Your task to perform on an android device: Clear the cart on walmart. Search for "logitech g910" on walmart, select the first entry, and add it to the cart. Image 0: 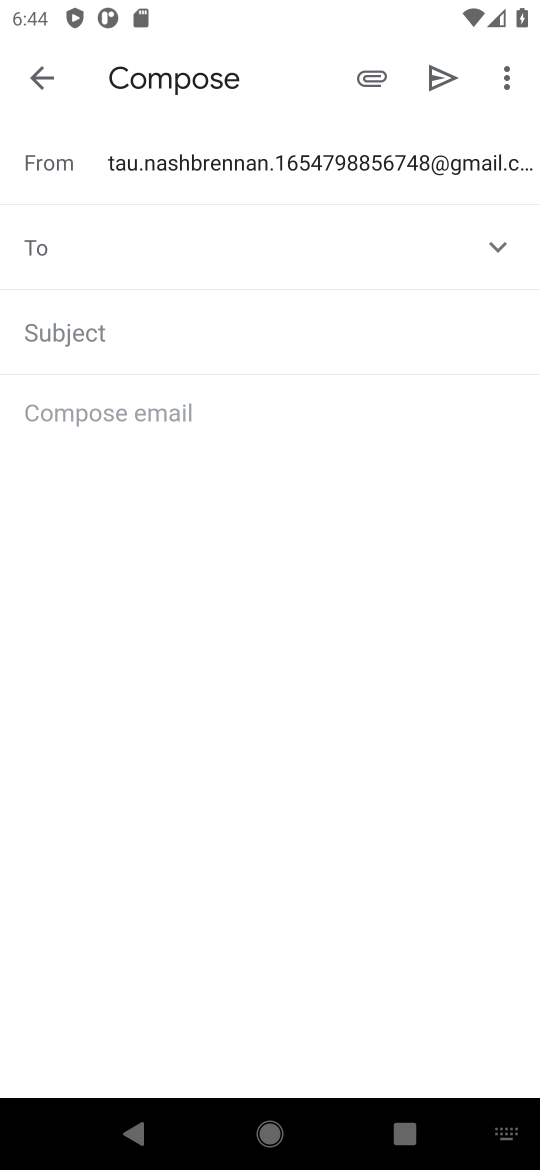
Step 0: press home button
Your task to perform on an android device: Clear the cart on walmart. Search for "logitech g910" on walmart, select the first entry, and add it to the cart. Image 1: 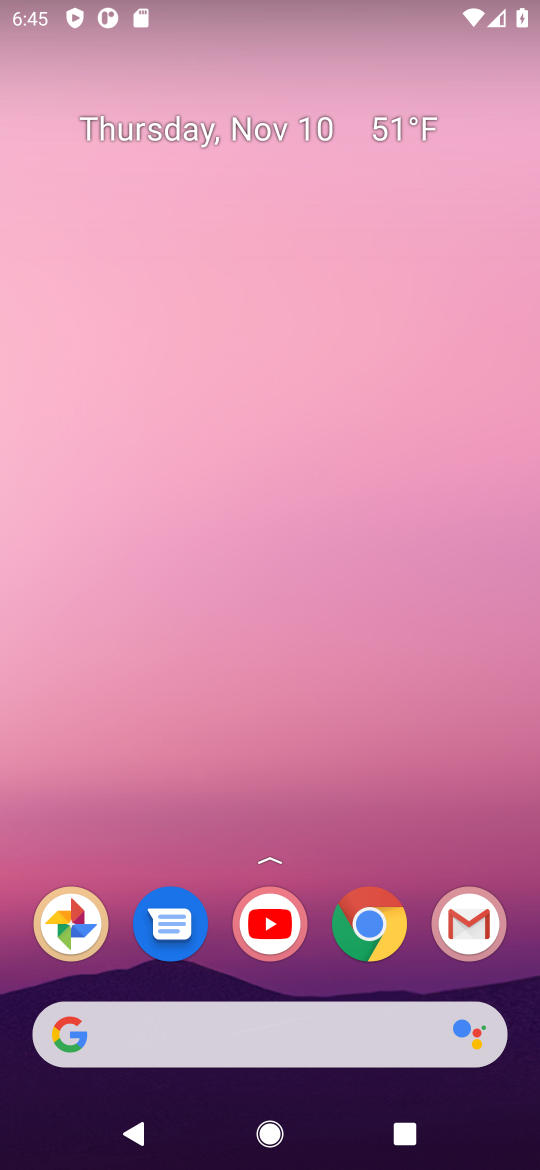
Step 1: click (364, 931)
Your task to perform on an android device: Clear the cart on walmart. Search for "logitech g910" on walmart, select the first entry, and add it to the cart. Image 2: 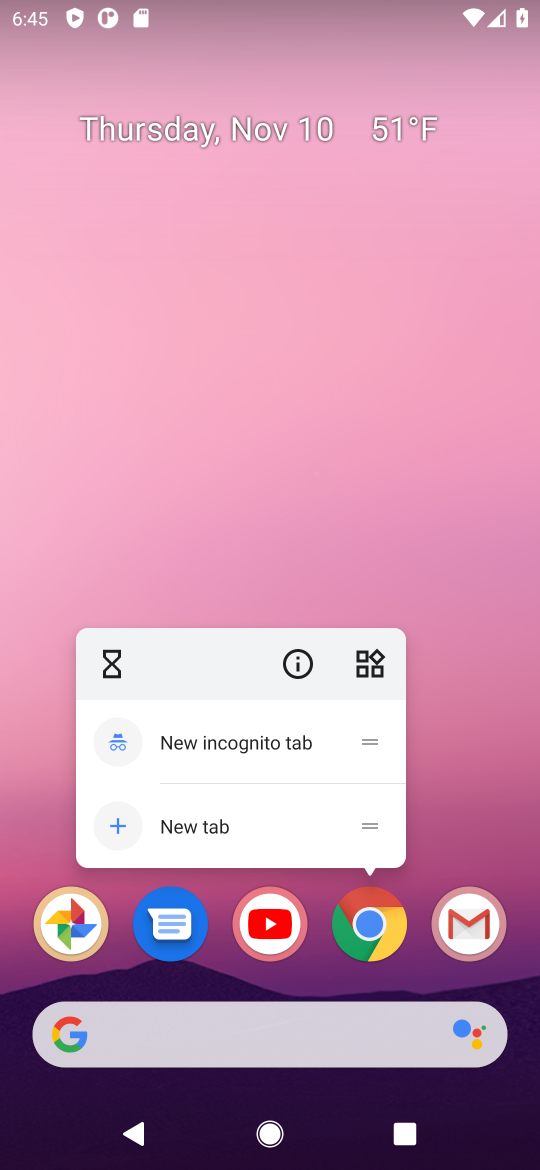
Step 2: click (369, 930)
Your task to perform on an android device: Clear the cart on walmart. Search for "logitech g910" on walmart, select the first entry, and add it to the cart. Image 3: 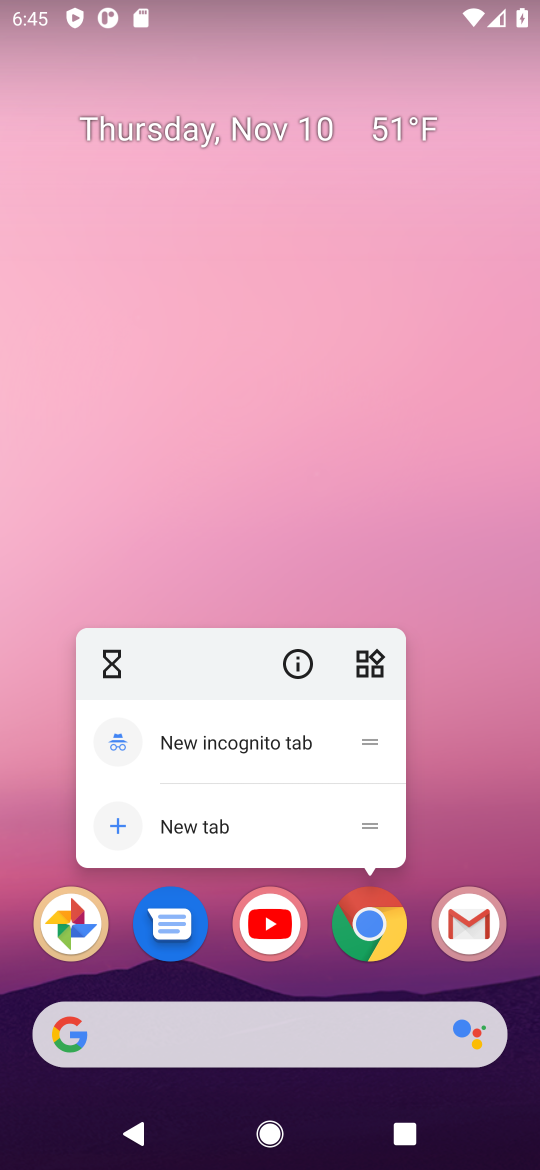
Step 3: click (369, 930)
Your task to perform on an android device: Clear the cart on walmart. Search for "logitech g910" on walmart, select the first entry, and add it to the cart. Image 4: 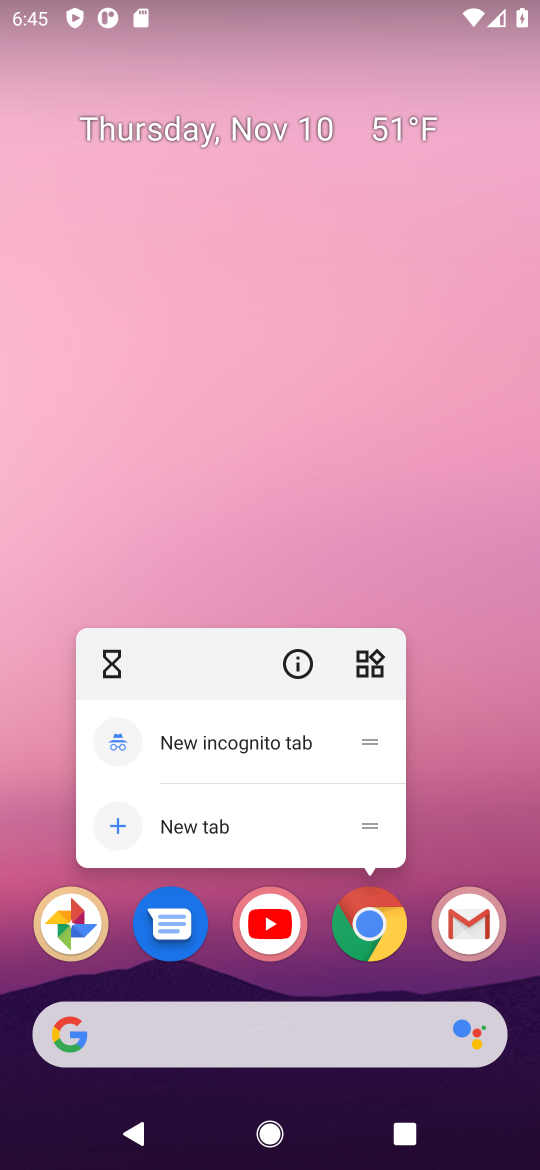
Step 4: click (369, 930)
Your task to perform on an android device: Clear the cart on walmart. Search for "logitech g910" on walmart, select the first entry, and add it to the cart. Image 5: 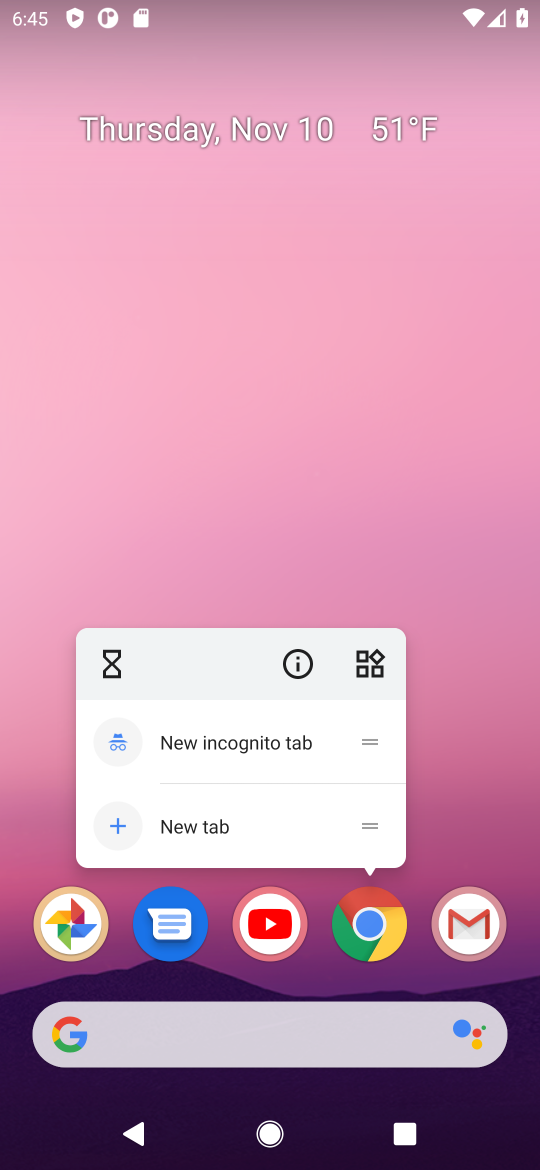
Step 5: click (371, 924)
Your task to perform on an android device: Clear the cart on walmart. Search for "logitech g910" on walmart, select the first entry, and add it to the cart. Image 6: 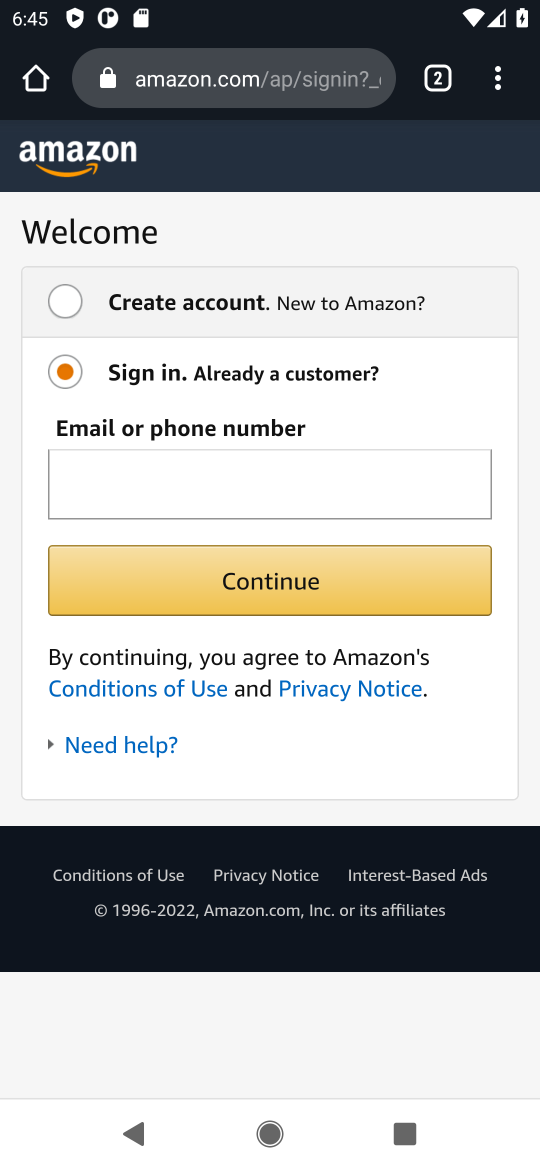
Step 6: click (214, 93)
Your task to perform on an android device: Clear the cart on walmart. Search for "logitech g910" on walmart, select the first entry, and add it to the cart. Image 7: 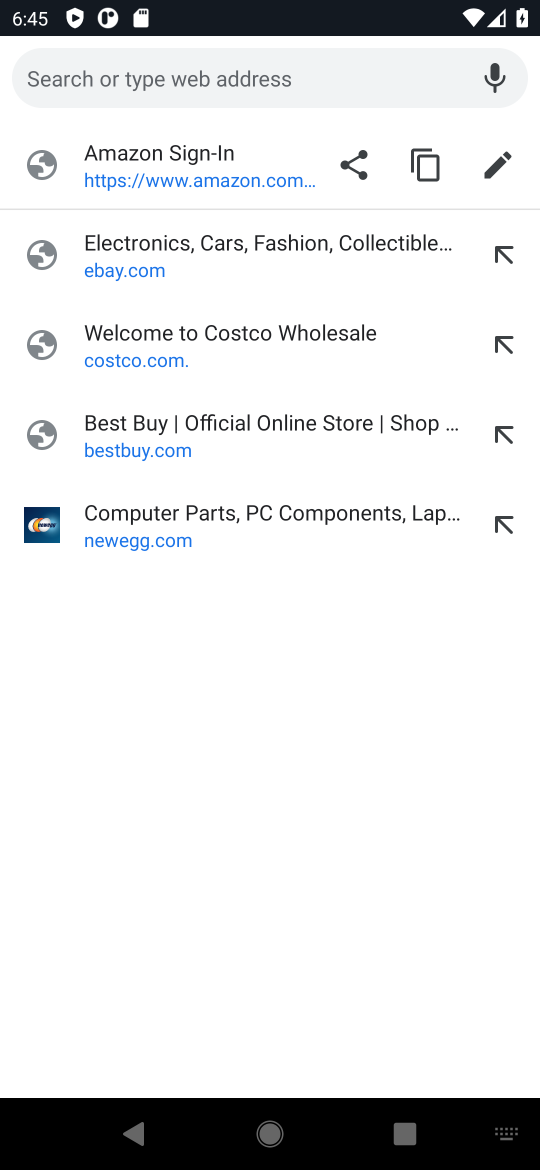
Step 7: type "walmart.com"
Your task to perform on an android device: Clear the cart on walmart. Search for "logitech g910" on walmart, select the first entry, and add it to the cart. Image 8: 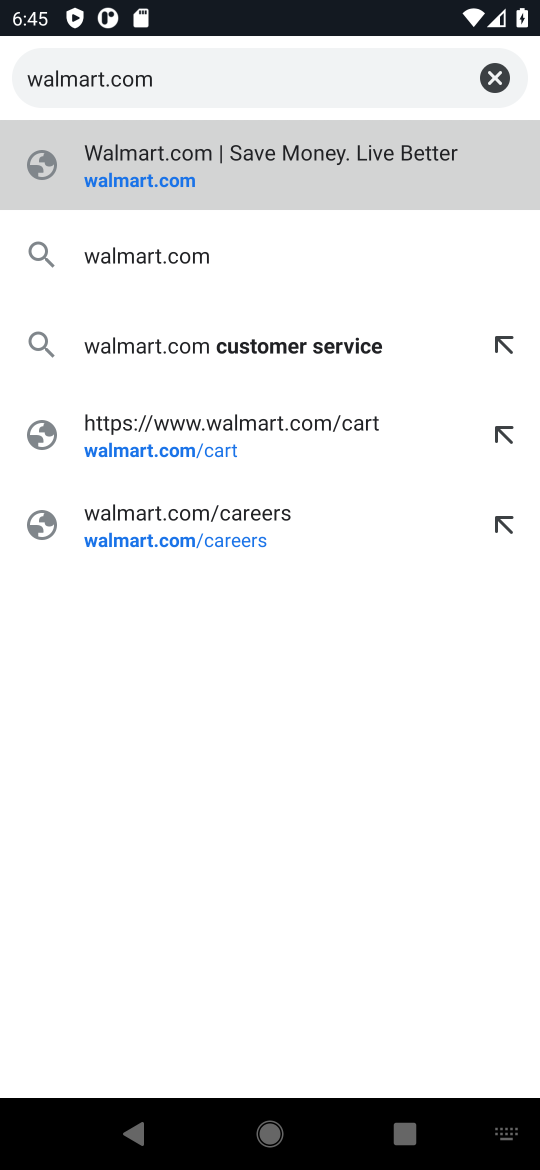
Step 8: click (165, 183)
Your task to perform on an android device: Clear the cart on walmart. Search for "logitech g910" on walmart, select the first entry, and add it to the cart. Image 9: 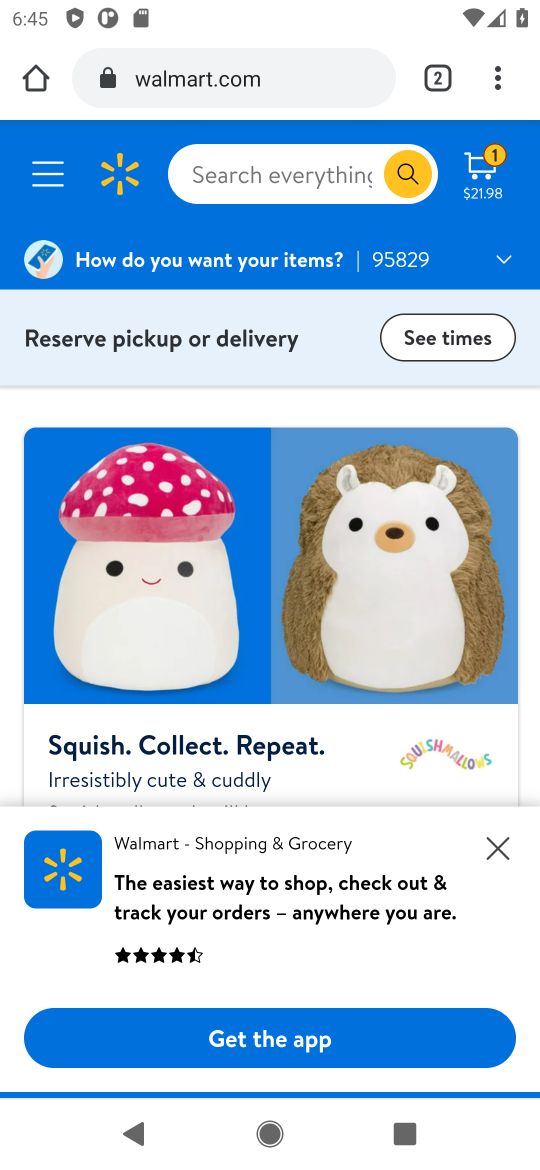
Step 9: click (485, 158)
Your task to perform on an android device: Clear the cart on walmart. Search for "logitech g910" on walmart, select the first entry, and add it to the cart. Image 10: 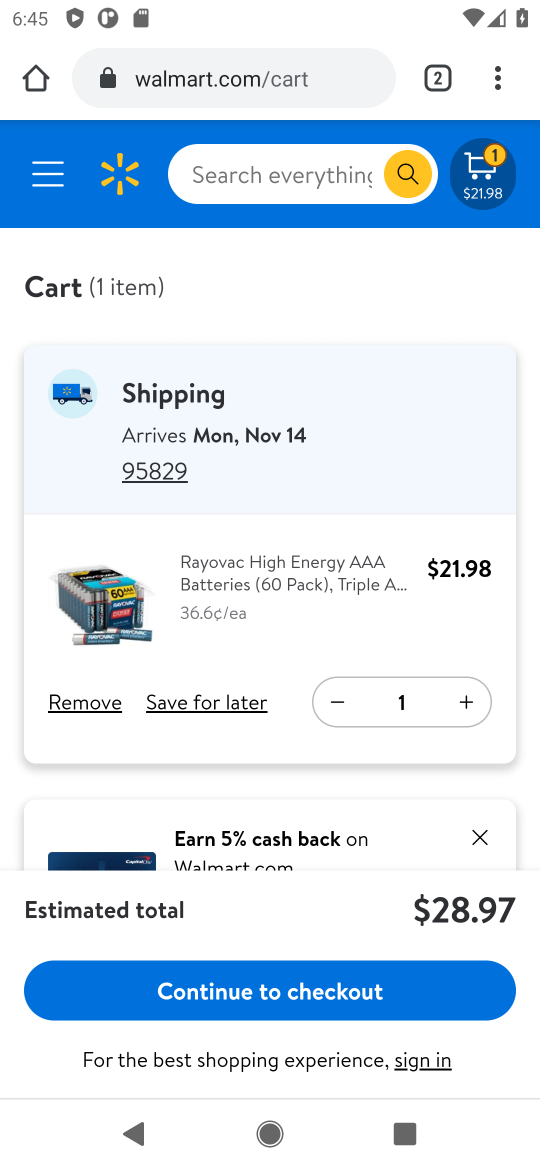
Step 10: click (98, 702)
Your task to perform on an android device: Clear the cart on walmart. Search for "logitech g910" on walmart, select the first entry, and add it to the cart. Image 11: 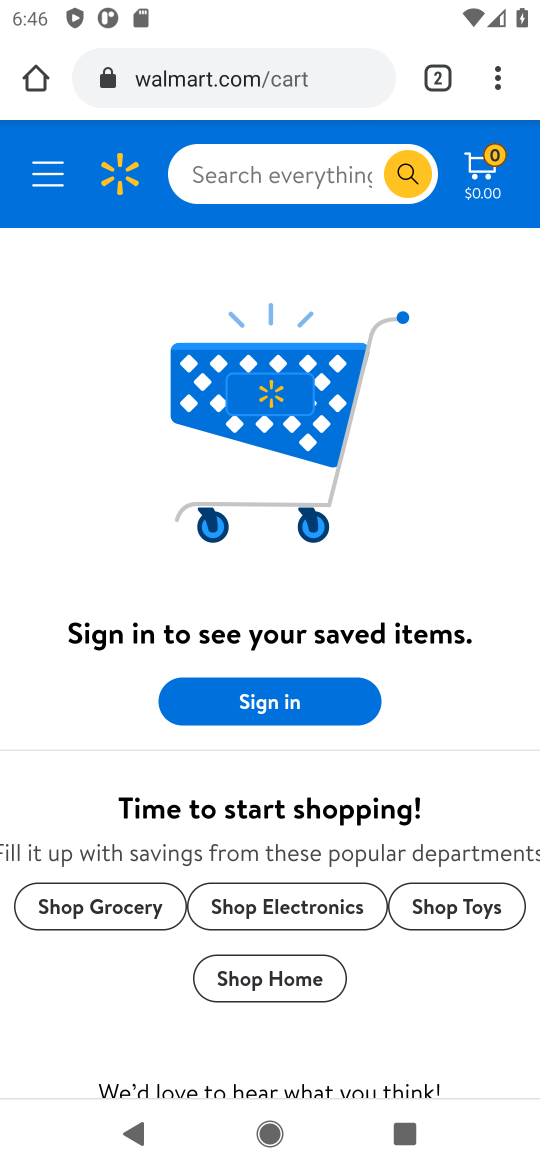
Step 11: click (262, 185)
Your task to perform on an android device: Clear the cart on walmart. Search for "logitech g910" on walmart, select the first entry, and add it to the cart. Image 12: 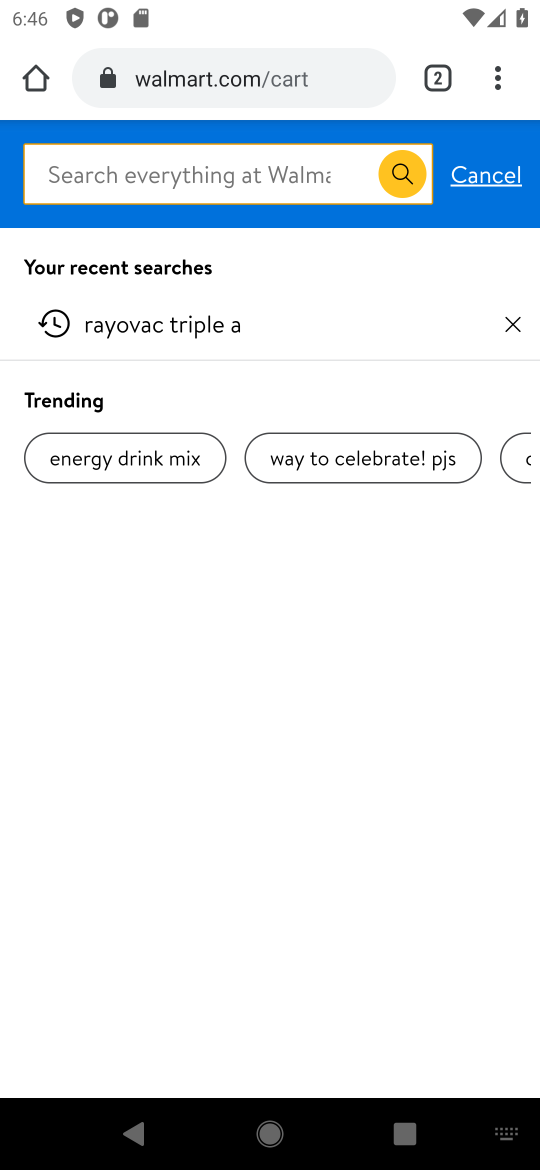
Step 12: type "logitech g910"
Your task to perform on an android device: Clear the cart on walmart. Search for "logitech g910" on walmart, select the first entry, and add it to the cart. Image 13: 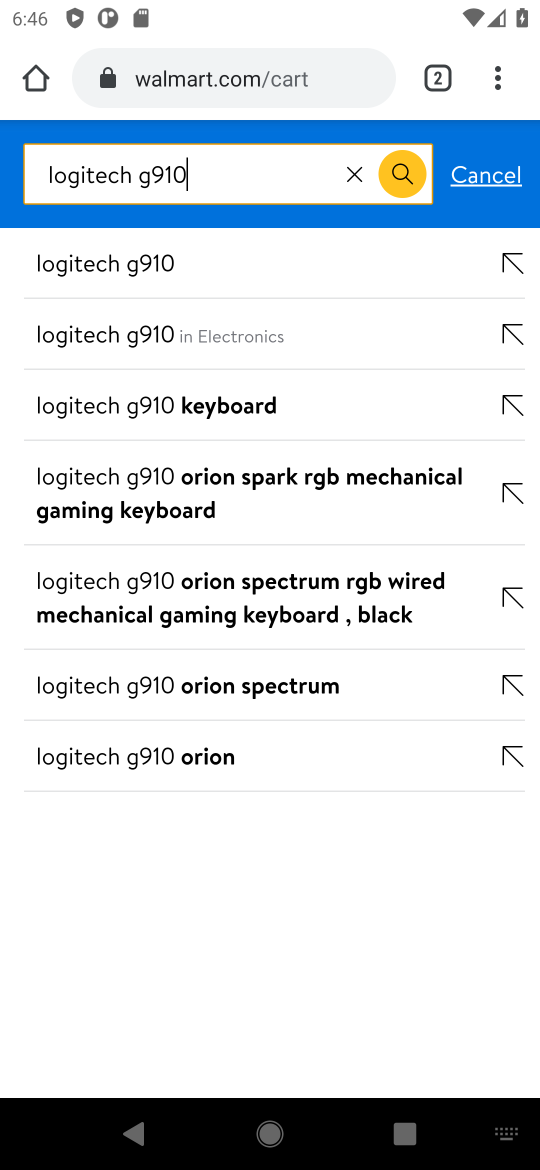
Step 13: click (72, 261)
Your task to perform on an android device: Clear the cart on walmart. Search for "logitech g910" on walmart, select the first entry, and add it to the cart. Image 14: 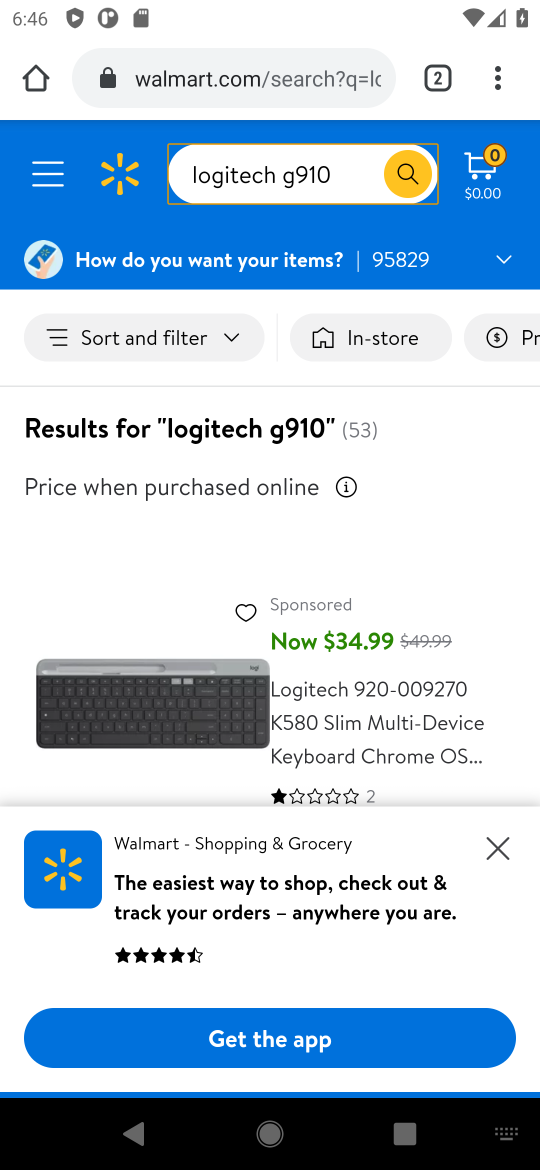
Step 14: click (498, 853)
Your task to perform on an android device: Clear the cart on walmart. Search for "logitech g910" on walmart, select the first entry, and add it to the cart. Image 15: 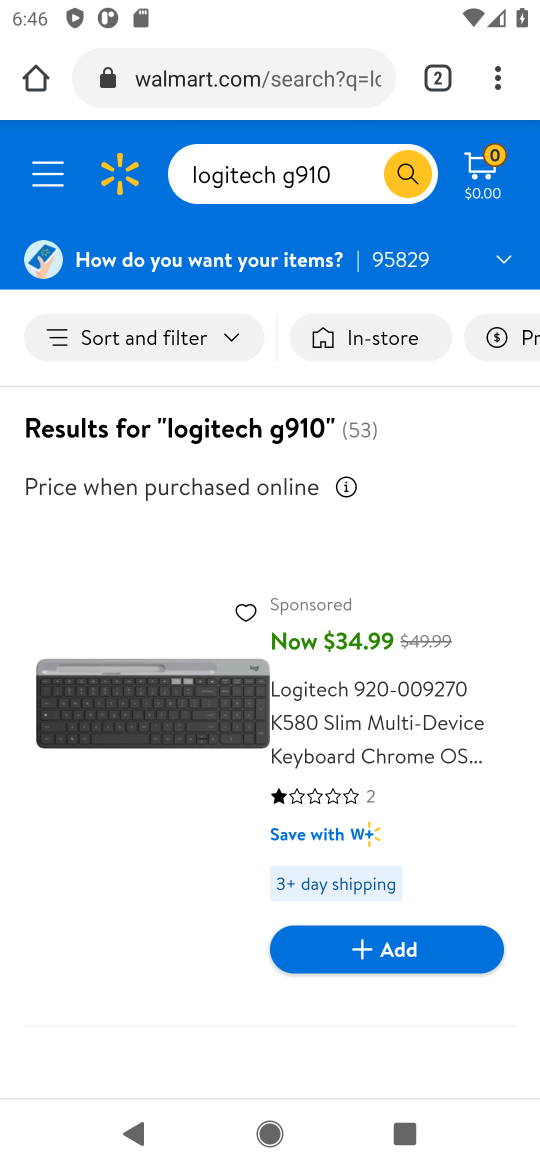
Step 15: task complete